Your task to perform on an android device: When is my next appointment? Image 0: 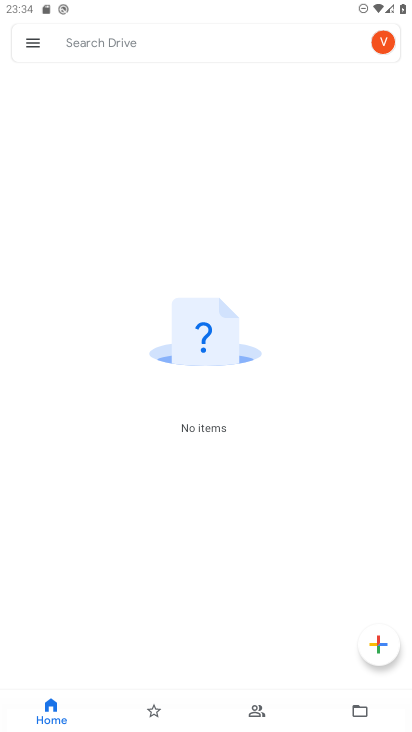
Step 0: press home button
Your task to perform on an android device: When is my next appointment? Image 1: 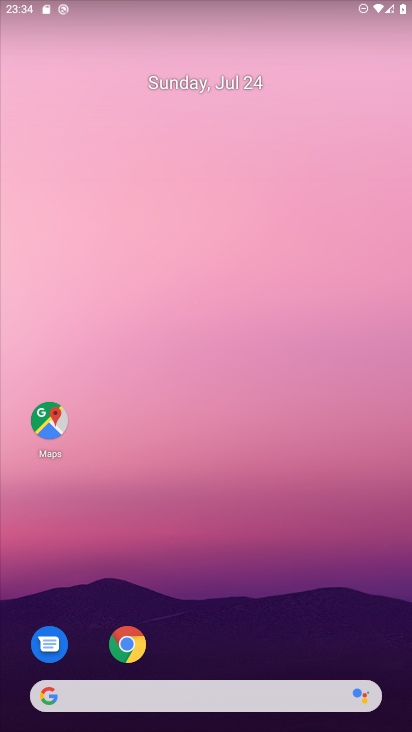
Step 1: drag from (282, 648) to (315, 88)
Your task to perform on an android device: When is my next appointment? Image 2: 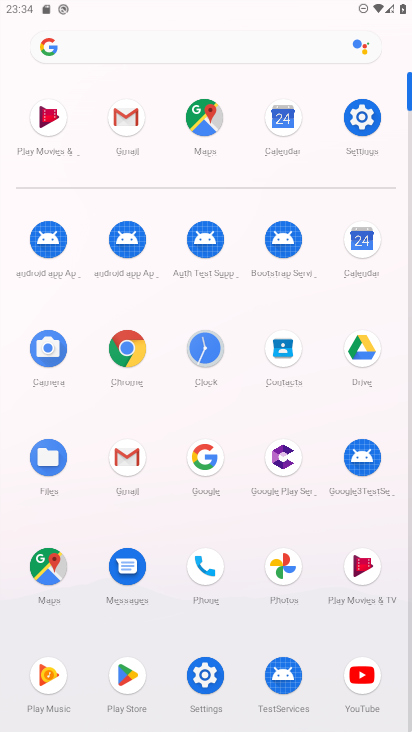
Step 2: click (361, 242)
Your task to perform on an android device: When is my next appointment? Image 3: 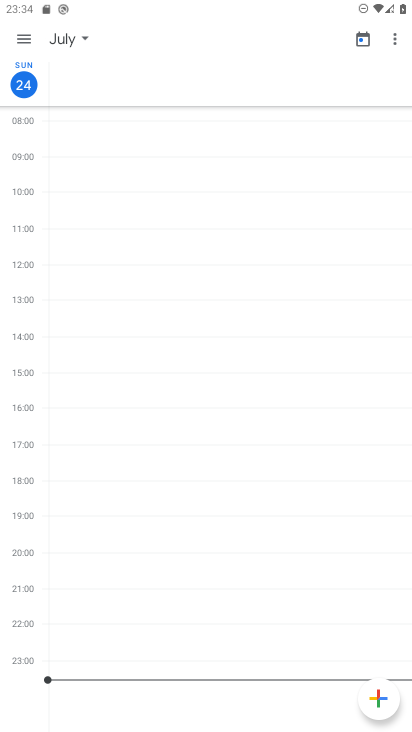
Step 3: click (20, 41)
Your task to perform on an android device: When is my next appointment? Image 4: 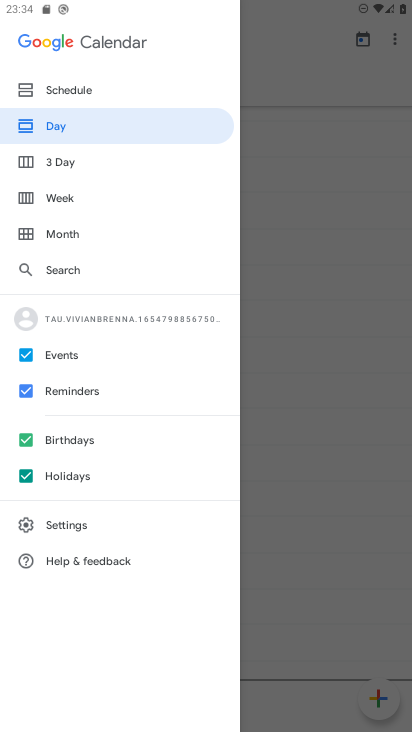
Step 4: click (61, 83)
Your task to perform on an android device: When is my next appointment? Image 5: 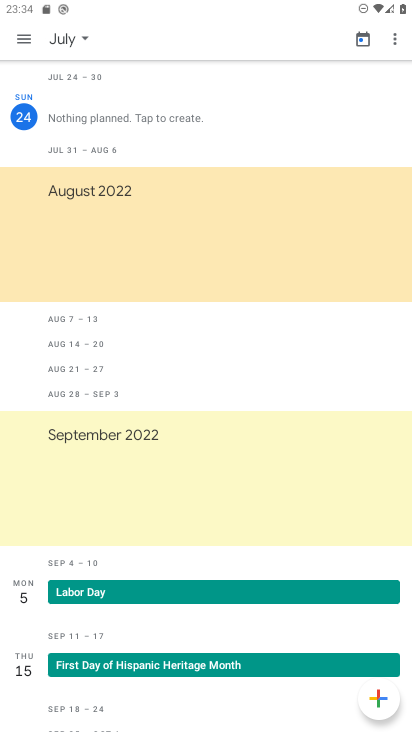
Step 5: task complete